Your task to perform on an android device: open sync settings in chrome Image 0: 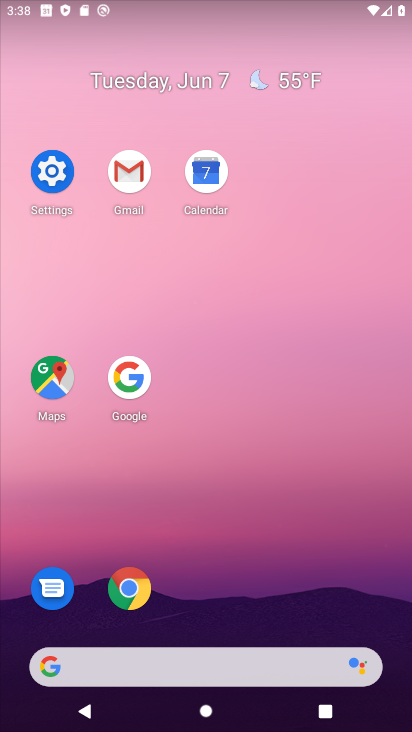
Step 0: click (150, 591)
Your task to perform on an android device: open sync settings in chrome Image 1: 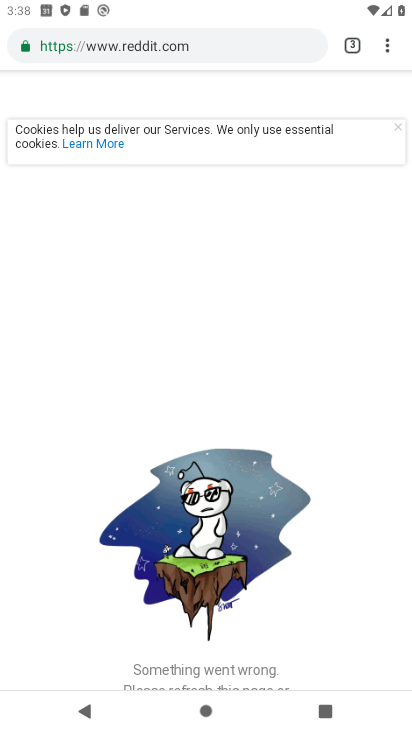
Step 1: click (383, 56)
Your task to perform on an android device: open sync settings in chrome Image 2: 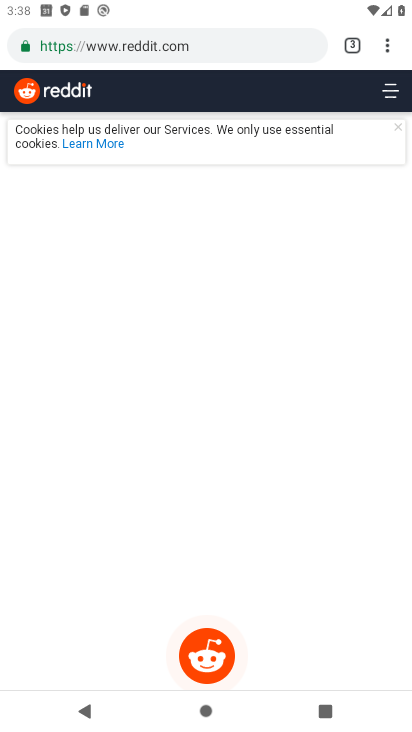
Step 2: click (396, 41)
Your task to perform on an android device: open sync settings in chrome Image 3: 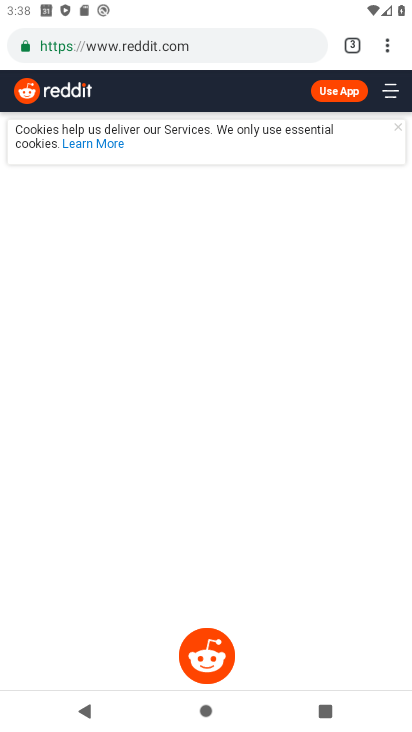
Step 3: click (392, 60)
Your task to perform on an android device: open sync settings in chrome Image 4: 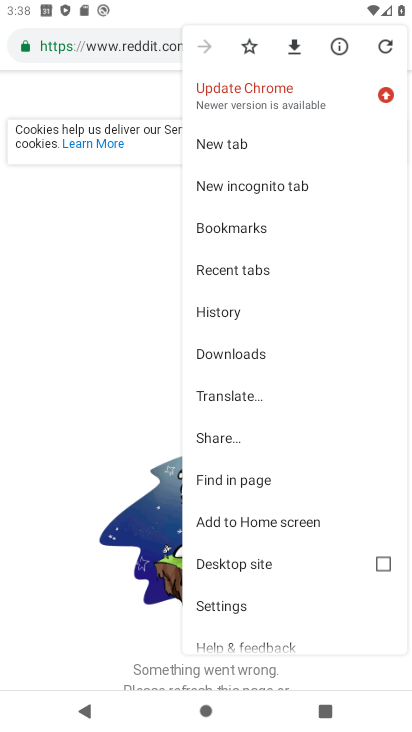
Step 4: click (287, 610)
Your task to perform on an android device: open sync settings in chrome Image 5: 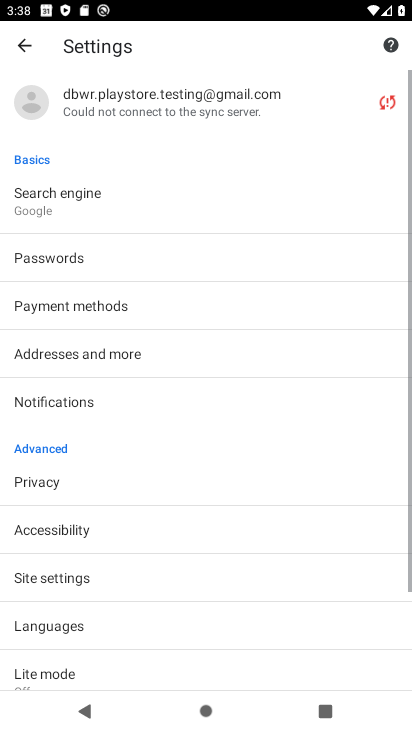
Step 5: drag from (257, 580) to (291, 245)
Your task to perform on an android device: open sync settings in chrome Image 6: 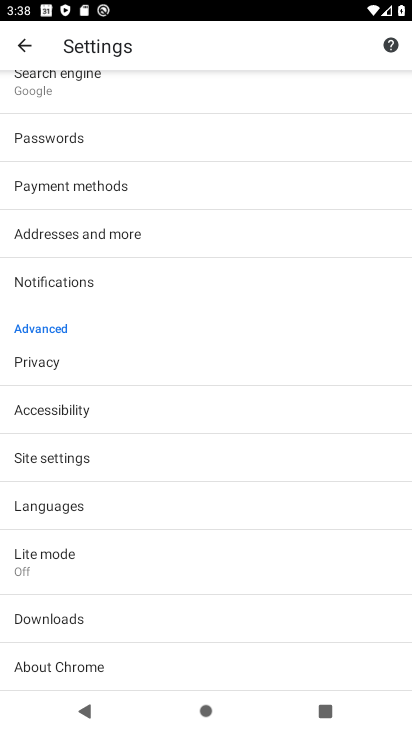
Step 6: click (171, 469)
Your task to perform on an android device: open sync settings in chrome Image 7: 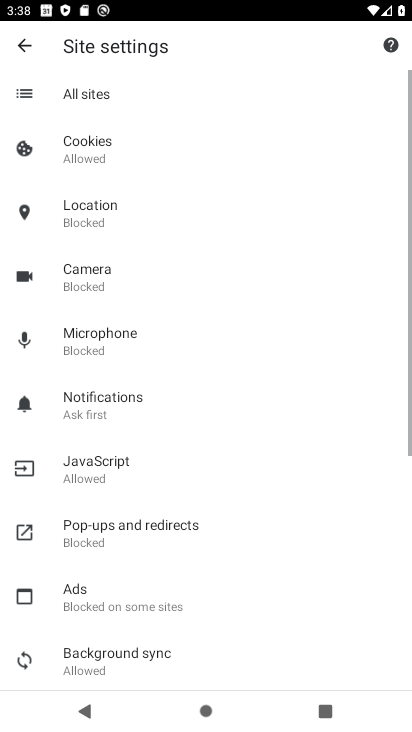
Step 7: drag from (206, 593) to (167, 261)
Your task to perform on an android device: open sync settings in chrome Image 8: 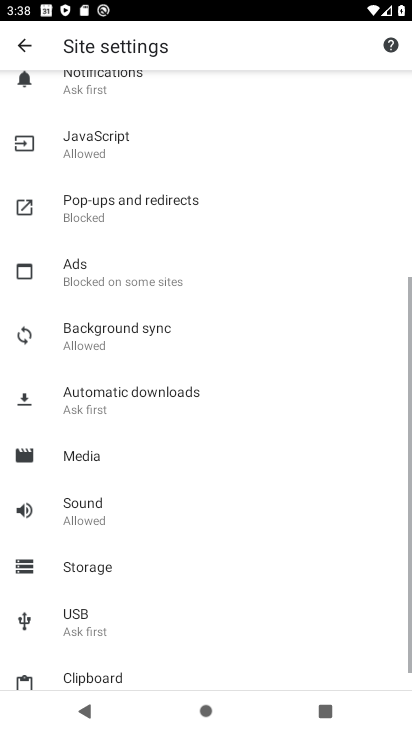
Step 8: click (162, 327)
Your task to perform on an android device: open sync settings in chrome Image 9: 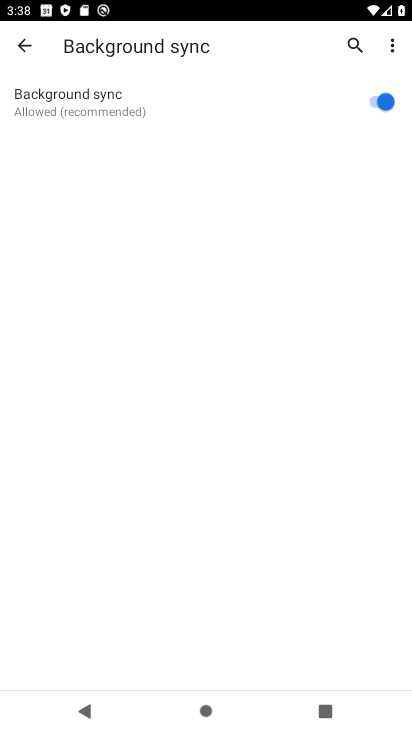
Step 9: task complete